Your task to perform on an android device: Open accessibility settings Image 0: 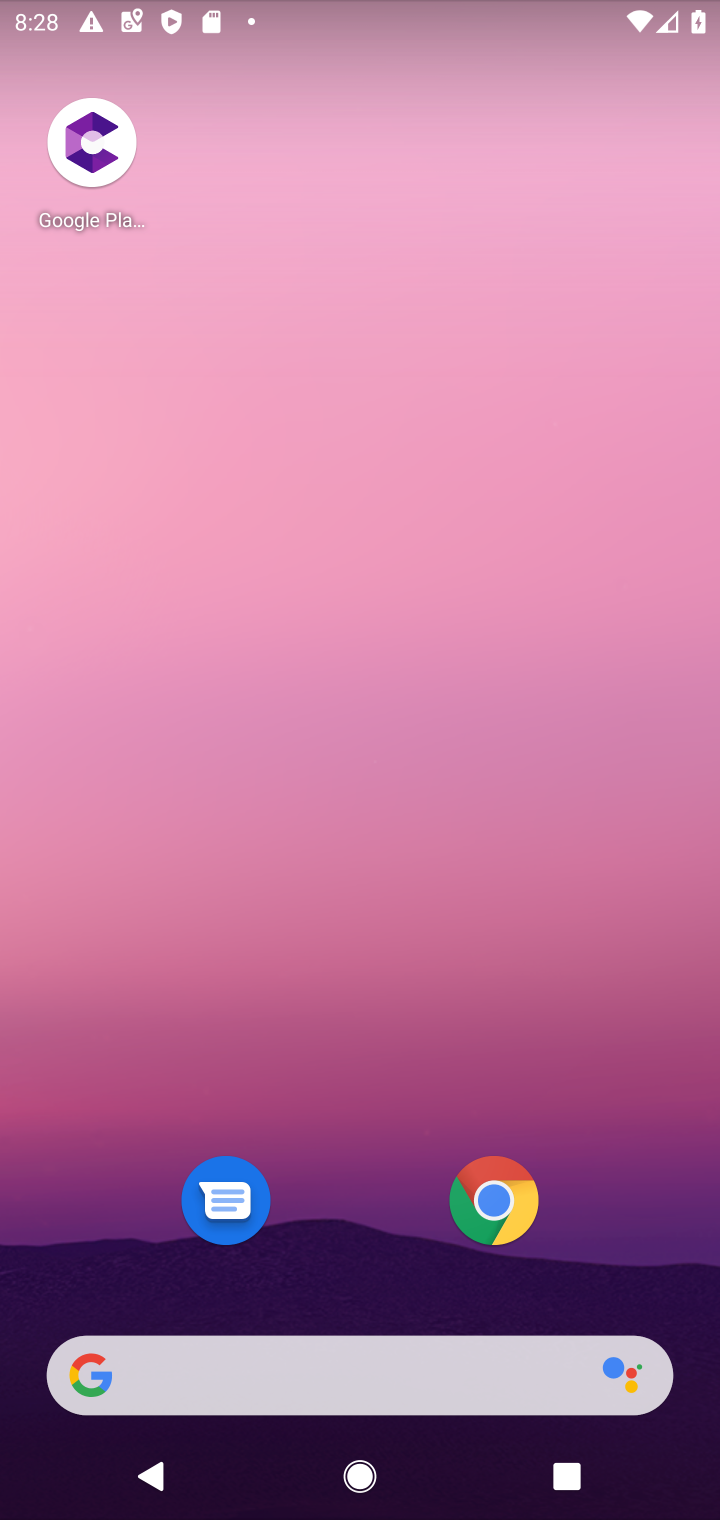
Step 0: drag from (365, 1304) to (393, 36)
Your task to perform on an android device: Open accessibility settings Image 1: 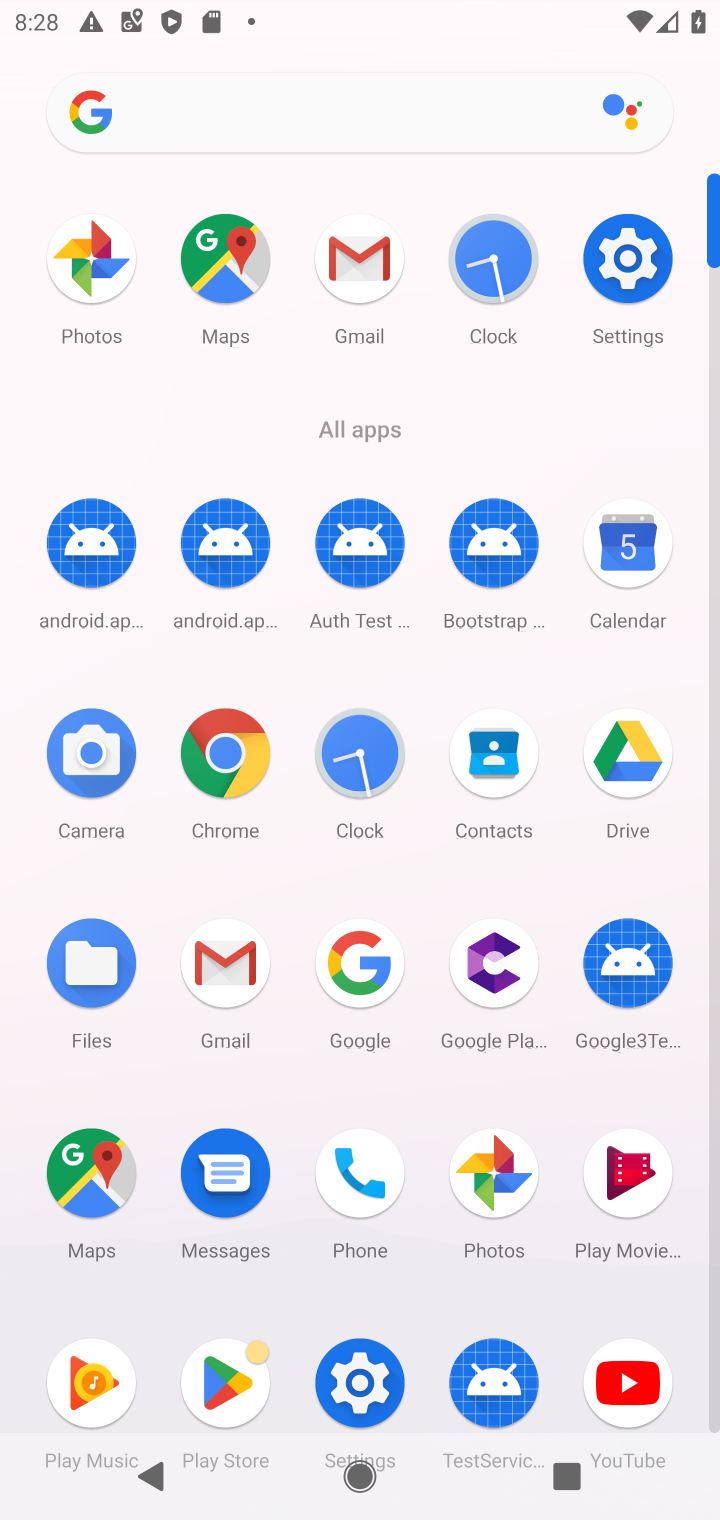
Step 1: click (604, 268)
Your task to perform on an android device: Open accessibility settings Image 2: 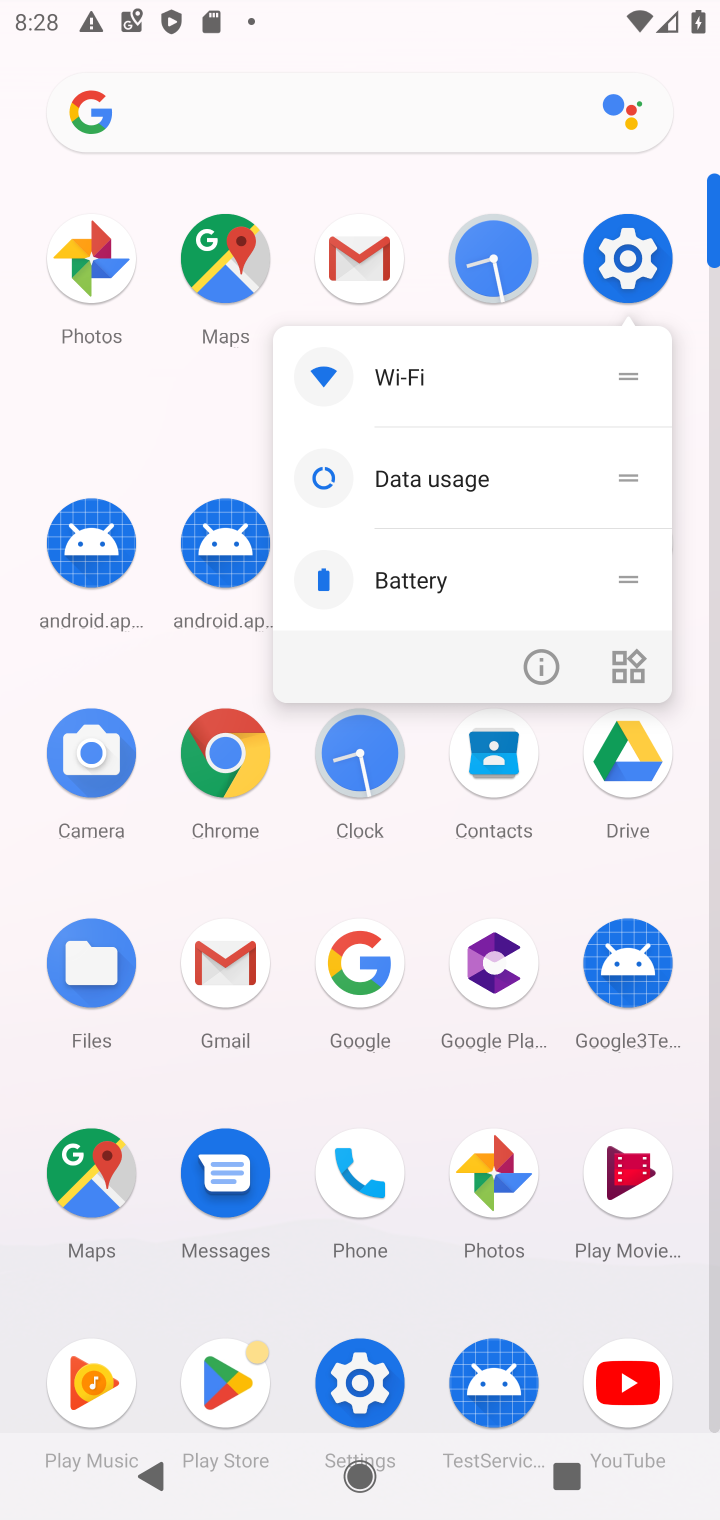
Step 2: click (664, 243)
Your task to perform on an android device: Open accessibility settings Image 3: 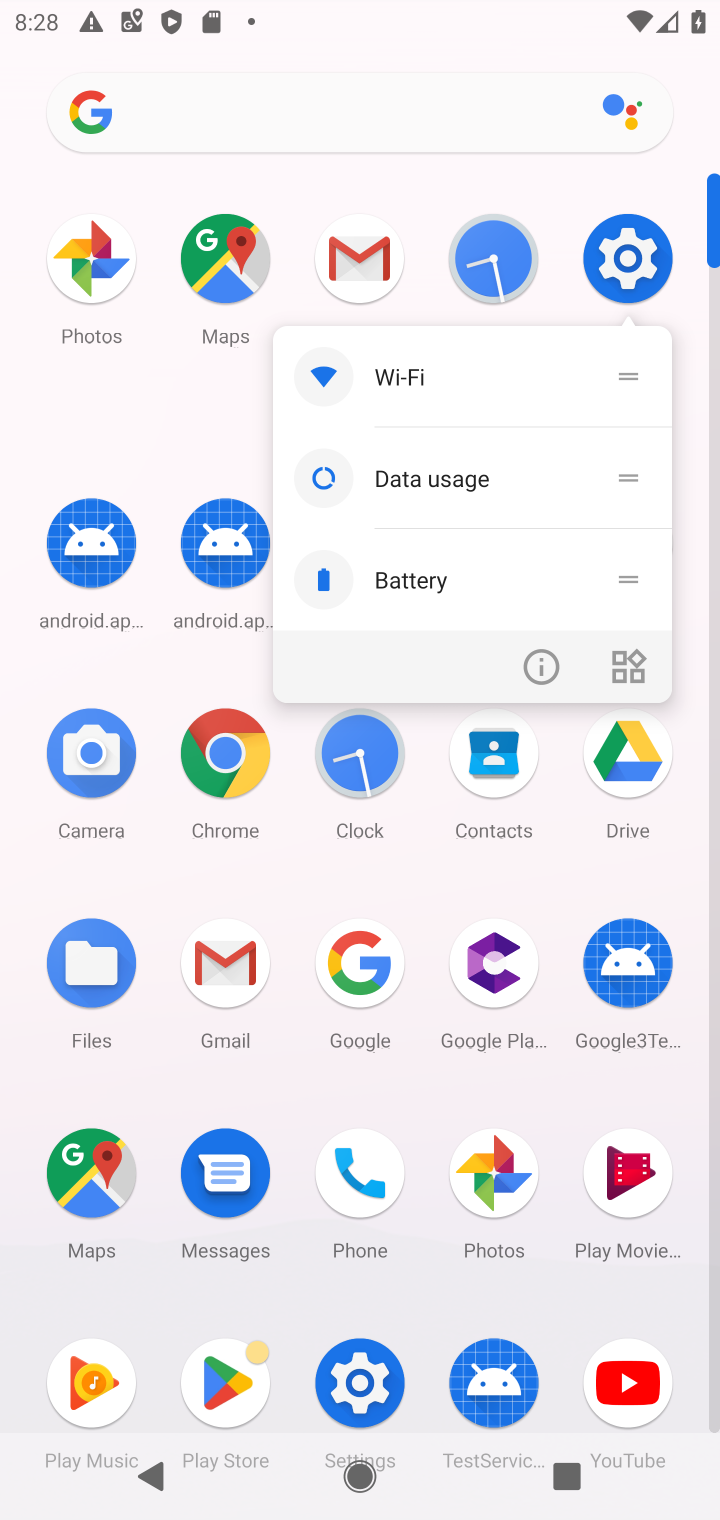
Step 3: click (650, 266)
Your task to perform on an android device: Open accessibility settings Image 4: 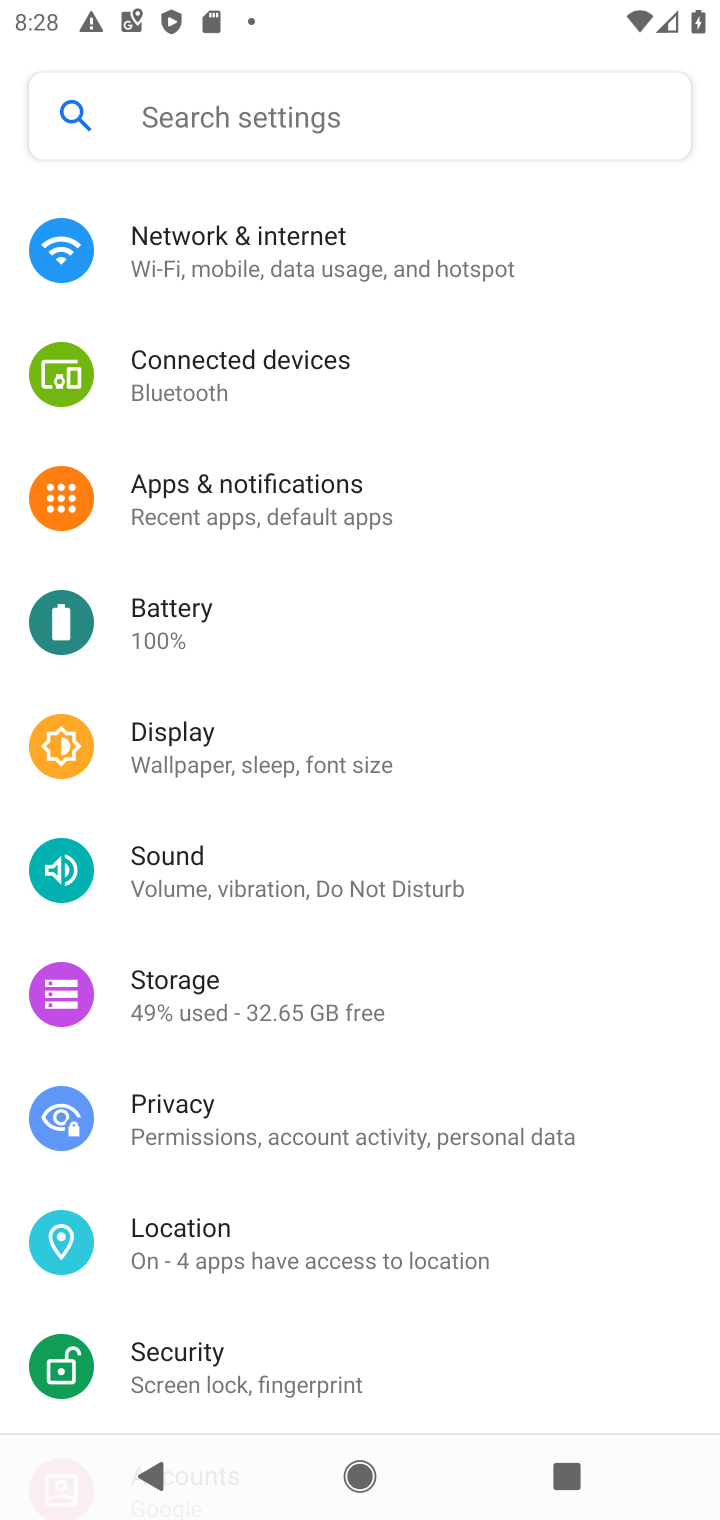
Step 4: drag from (215, 1139) to (292, 554)
Your task to perform on an android device: Open accessibility settings Image 5: 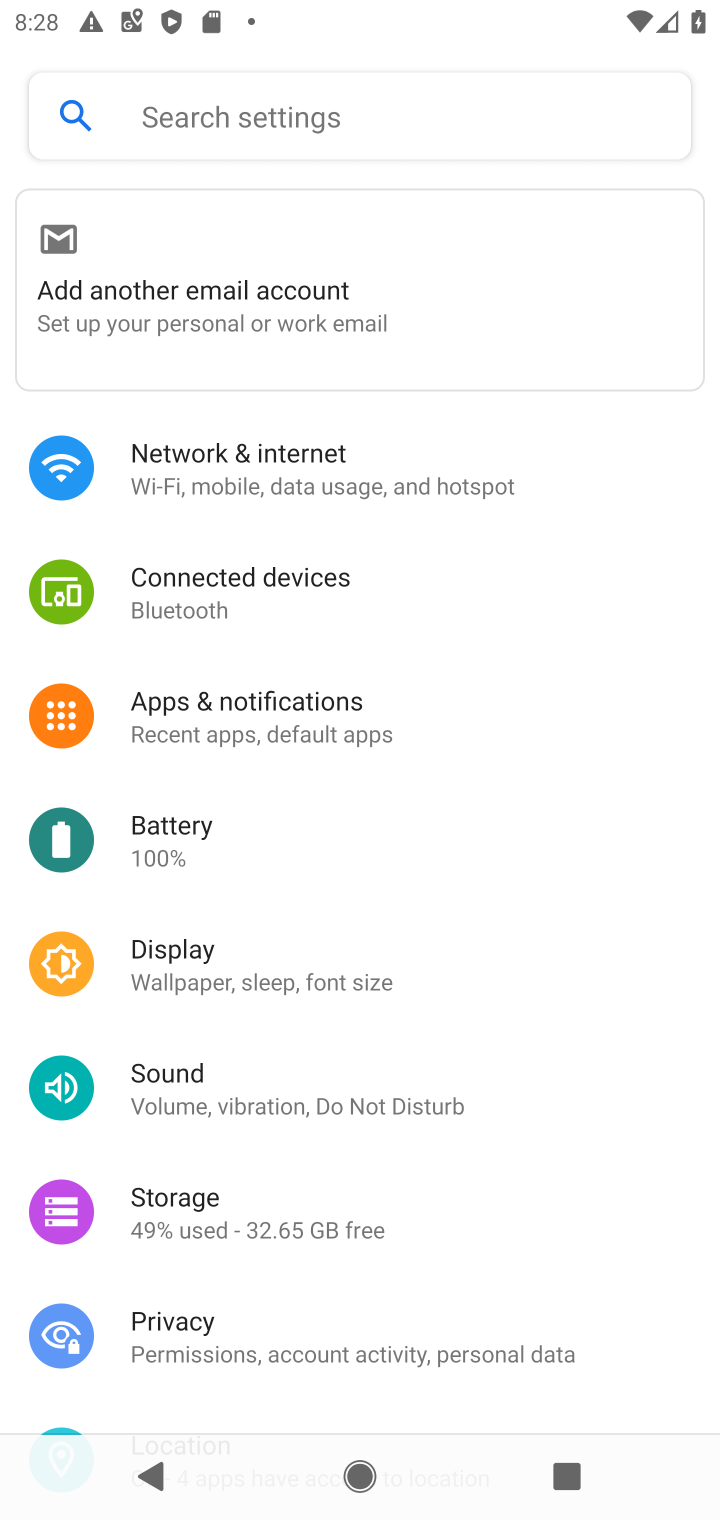
Step 5: drag from (174, 1295) to (261, 661)
Your task to perform on an android device: Open accessibility settings Image 6: 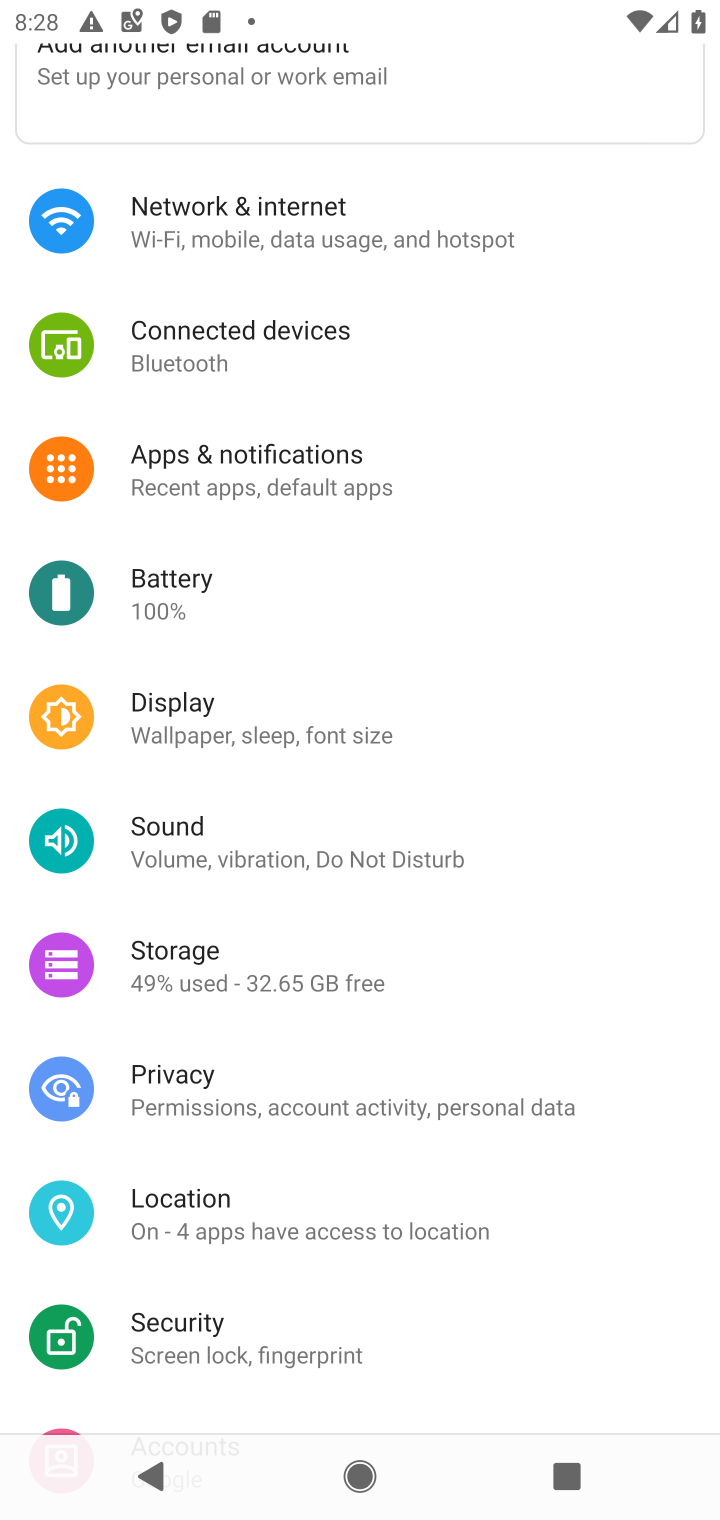
Step 6: drag from (280, 1349) to (289, 769)
Your task to perform on an android device: Open accessibility settings Image 7: 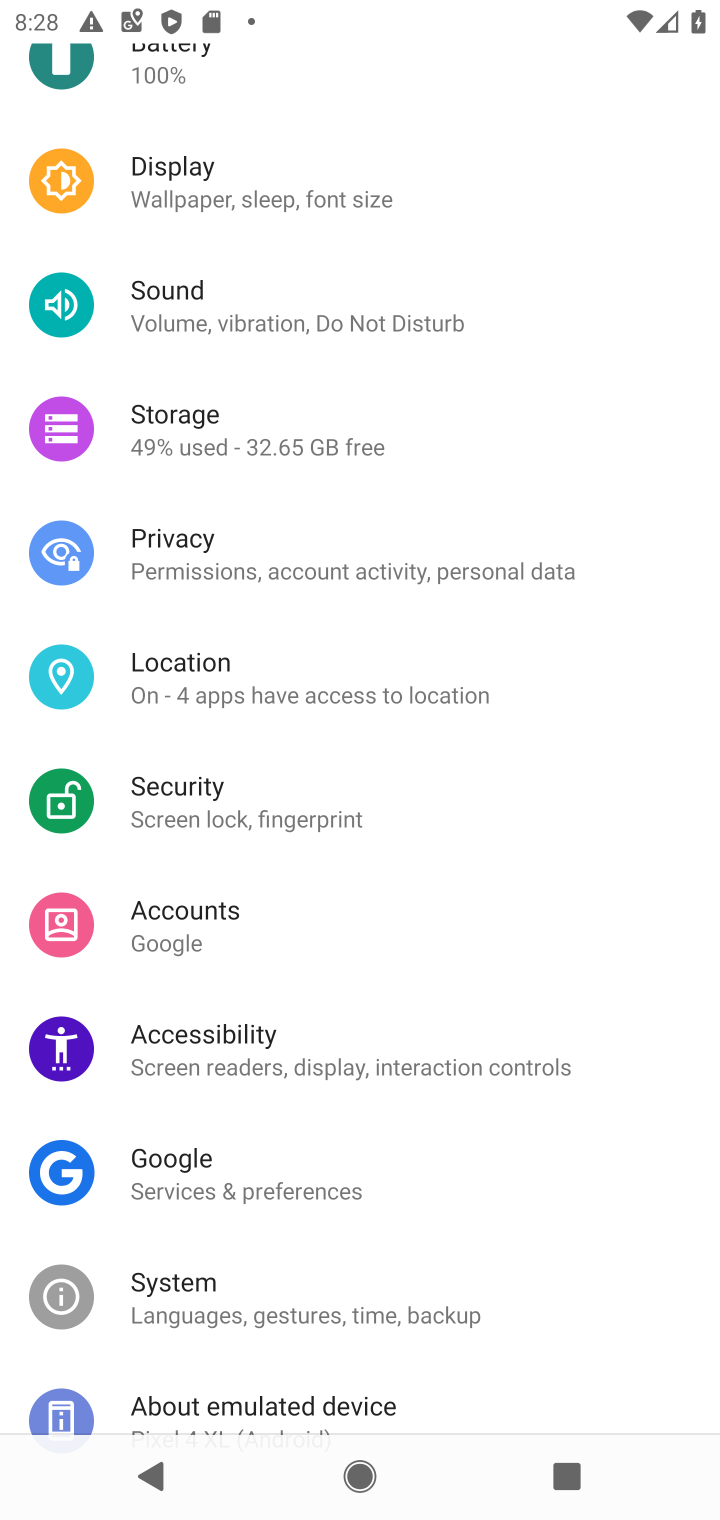
Step 7: click (201, 1068)
Your task to perform on an android device: Open accessibility settings Image 8: 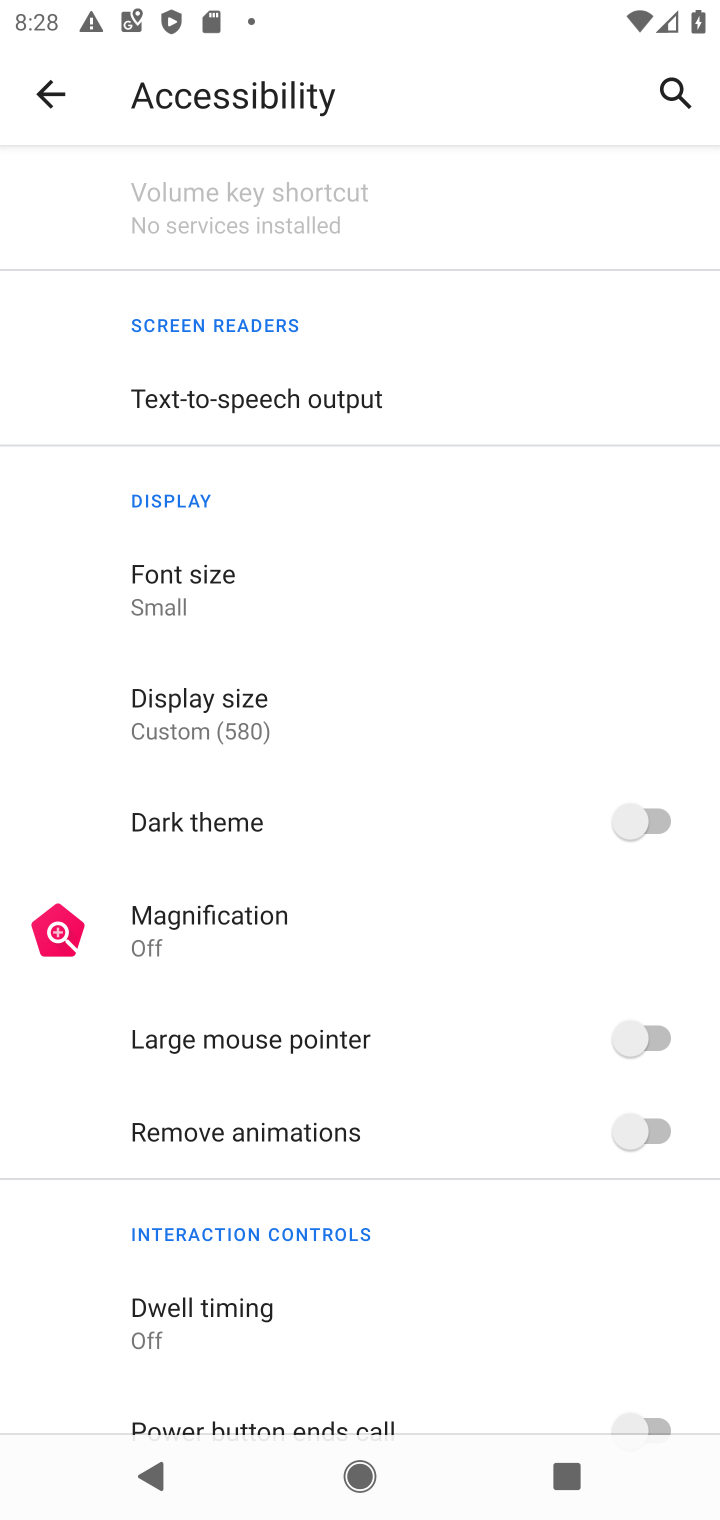
Step 8: task complete